Your task to perform on an android device: check android version Image 0: 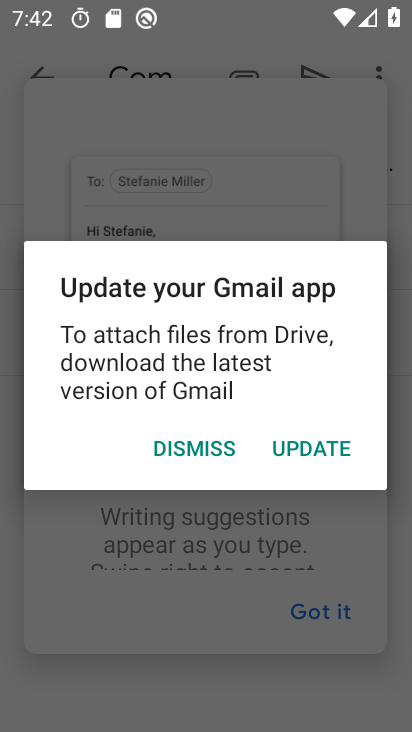
Step 0: press home button
Your task to perform on an android device: check android version Image 1: 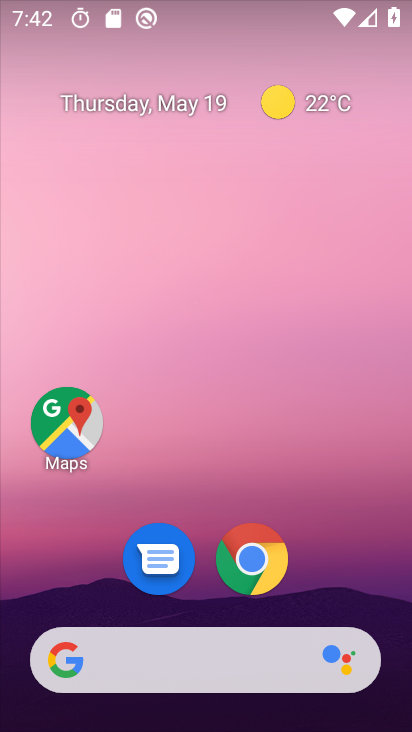
Step 1: drag from (308, 617) to (309, 15)
Your task to perform on an android device: check android version Image 2: 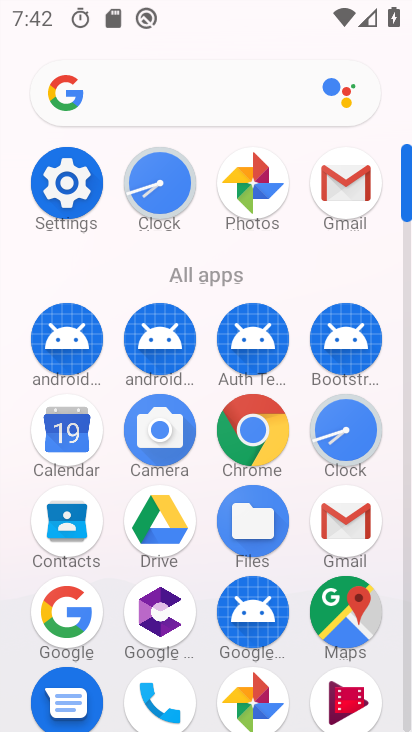
Step 2: click (70, 191)
Your task to perform on an android device: check android version Image 3: 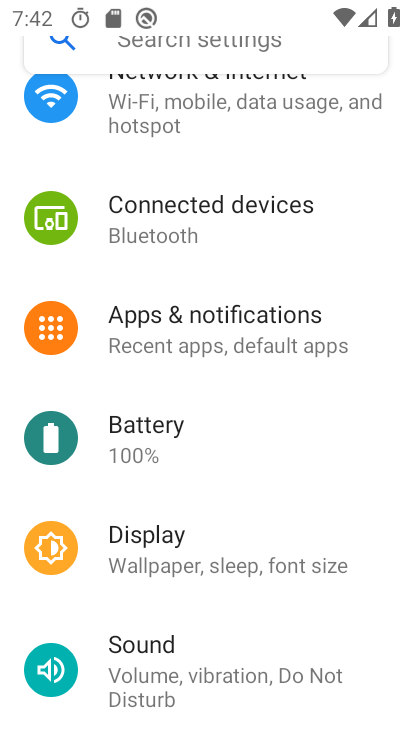
Step 3: drag from (247, 643) to (256, 86)
Your task to perform on an android device: check android version Image 4: 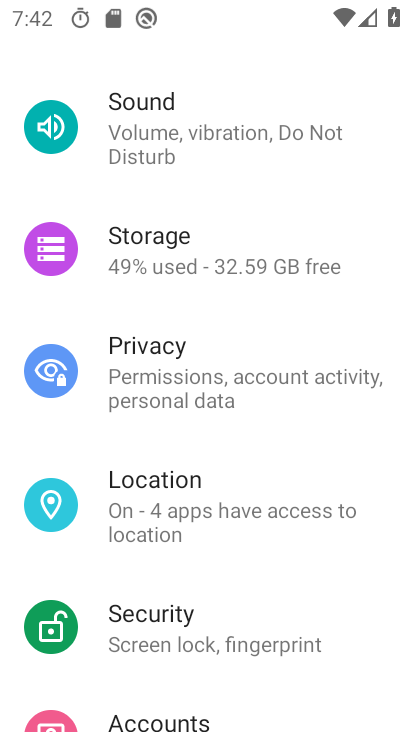
Step 4: drag from (224, 612) to (188, 118)
Your task to perform on an android device: check android version Image 5: 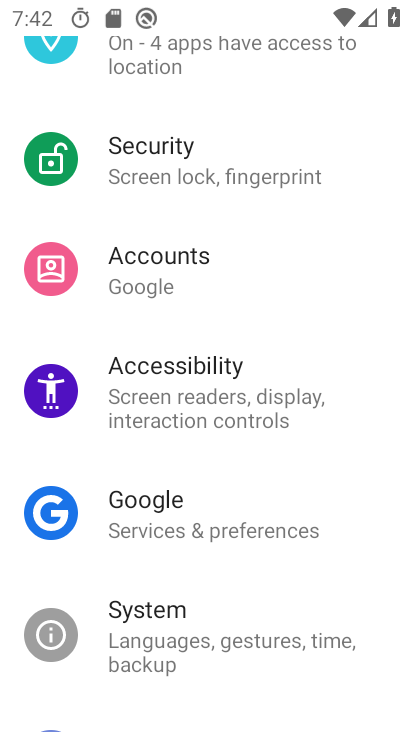
Step 5: drag from (193, 650) to (201, 299)
Your task to perform on an android device: check android version Image 6: 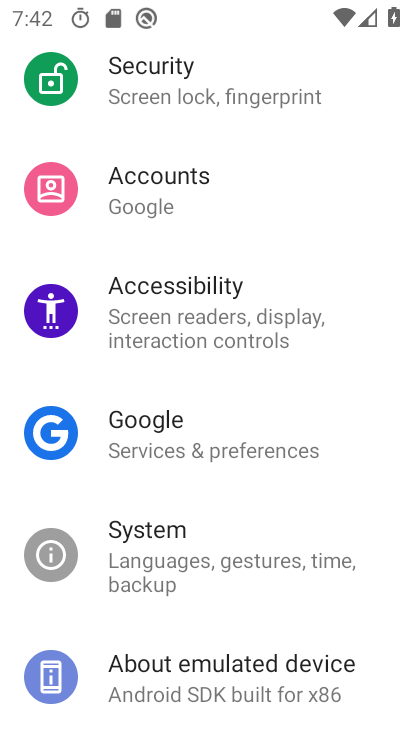
Step 6: click (150, 709)
Your task to perform on an android device: check android version Image 7: 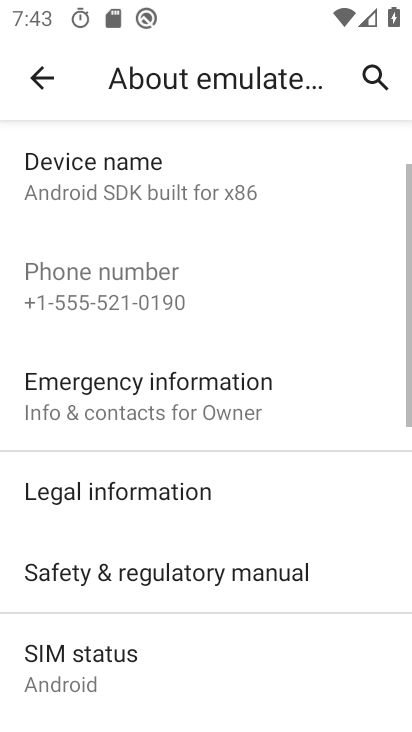
Step 7: drag from (215, 688) to (276, 107)
Your task to perform on an android device: check android version Image 8: 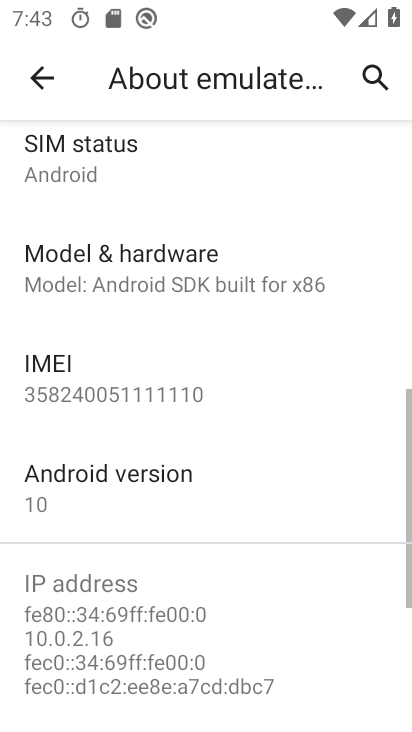
Step 8: click (166, 491)
Your task to perform on an android device: check android version Image 9: 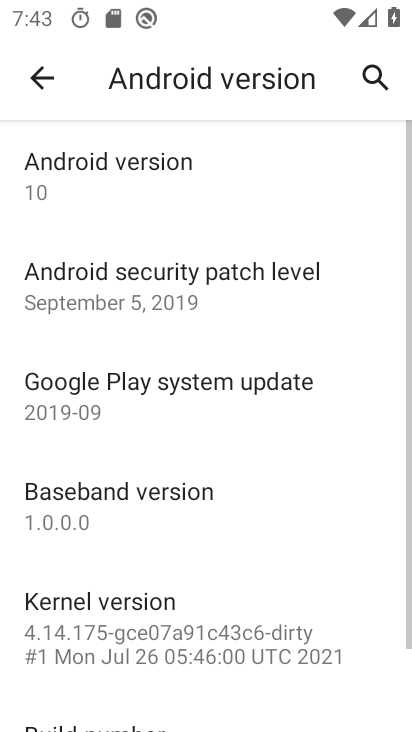
Step 9: click (79, 180)
Your task to perform on an android device: check android version Image 10: 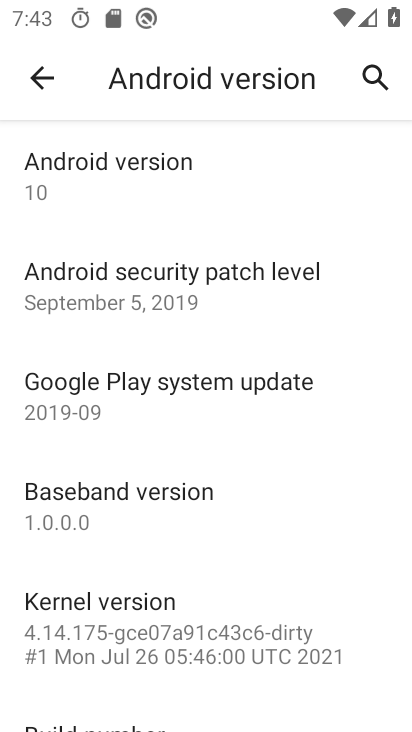
Step 10: task complete